Your task to perform on an android device: Go to Wikipedia Image 0: 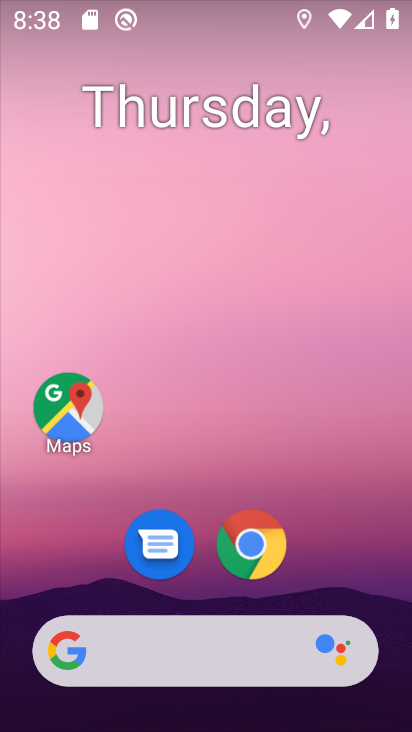
Step 0: drag from (340, 574) to (255, 2)
Your task to perform on an android device: Go to Wikipedia Image 1: 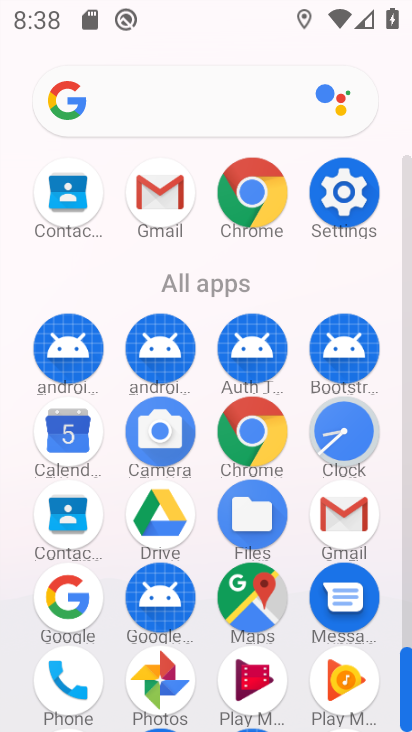
Step 1: drag from (15, 612) to (30, 285)
Your task to perform on an android device: Go to Wikipedia Image 2: 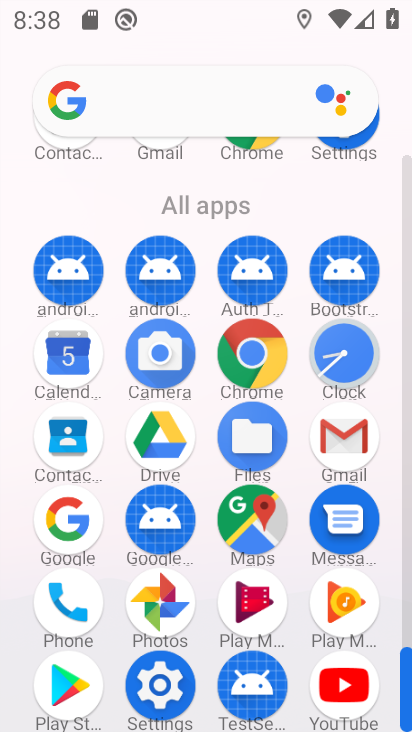
Step 2: click (252, 351)
Your task to perform on an android device: Go to Wikipedia Image 3: 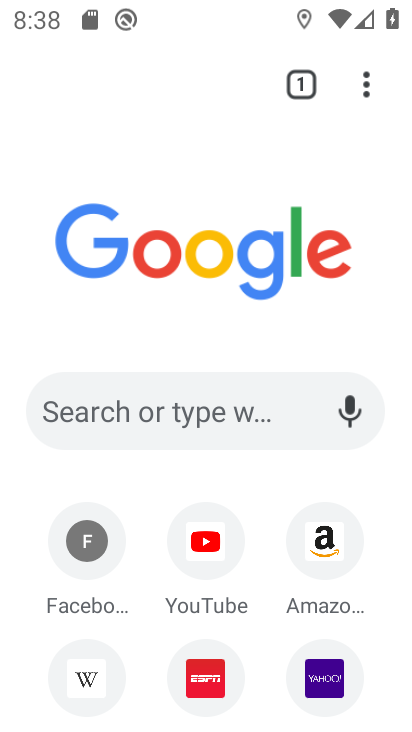
Step 3: click (77, 673)
Your task to perform on an android device: Go to Wikipedia Image 4: 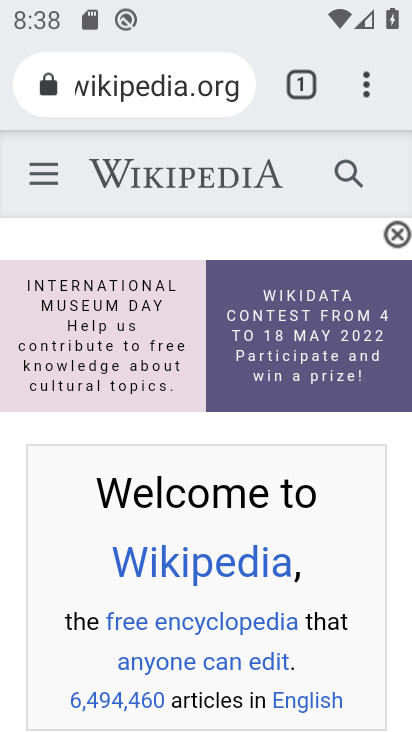
Step 4: task complete